Your task to perform on an android device: Go to privacy settings Image 0: 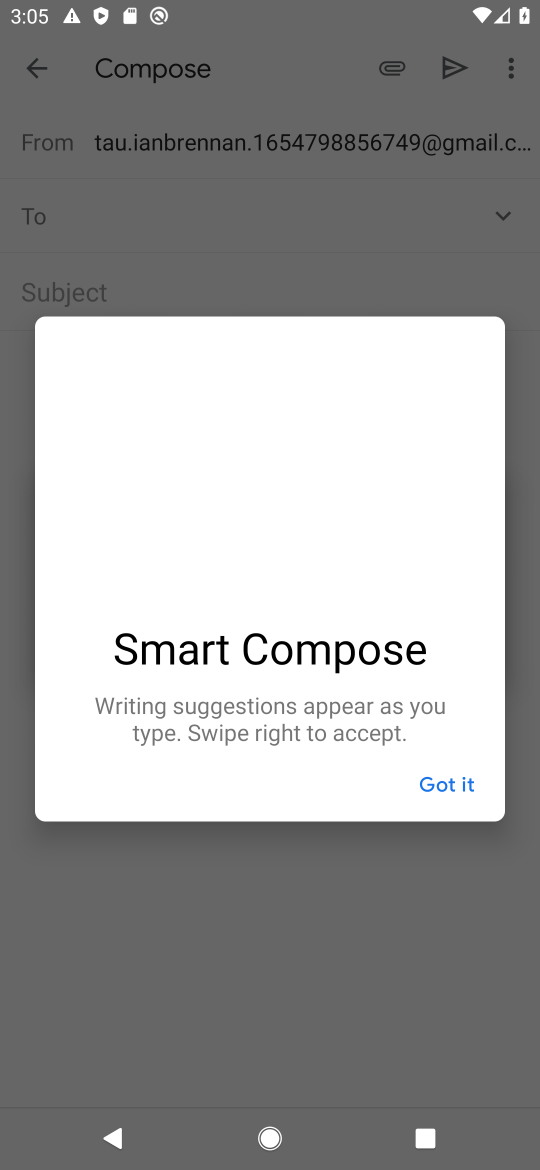
Step 0: press home button
Your task to perform on an android device: Go to privacy settings Image 1: 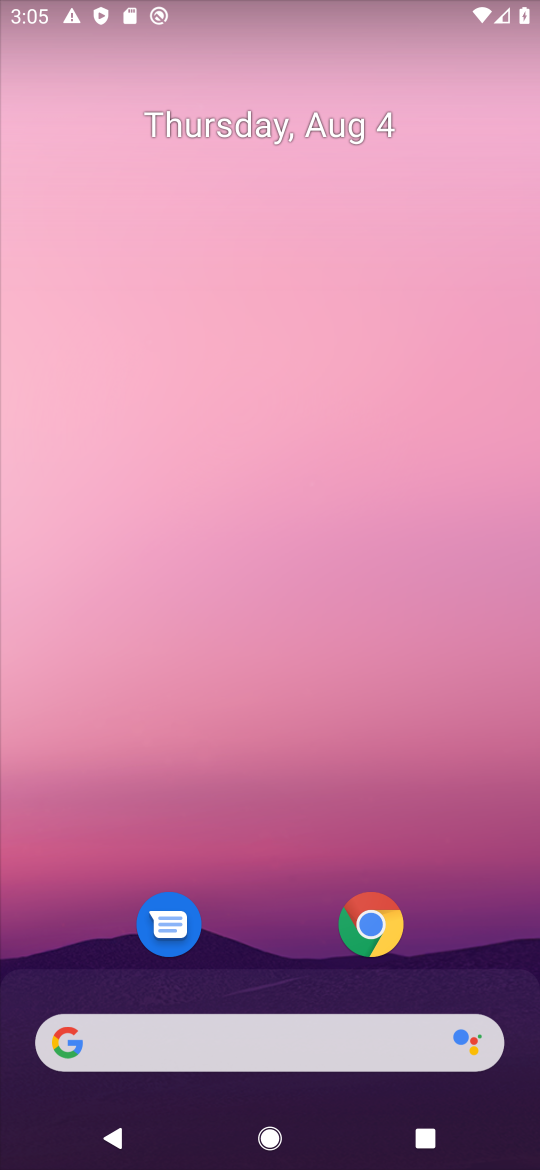
Step 1: drag from (280, 855) to (205, 34)
Your task to perform on an android device: Go to privacy settings Image 2: 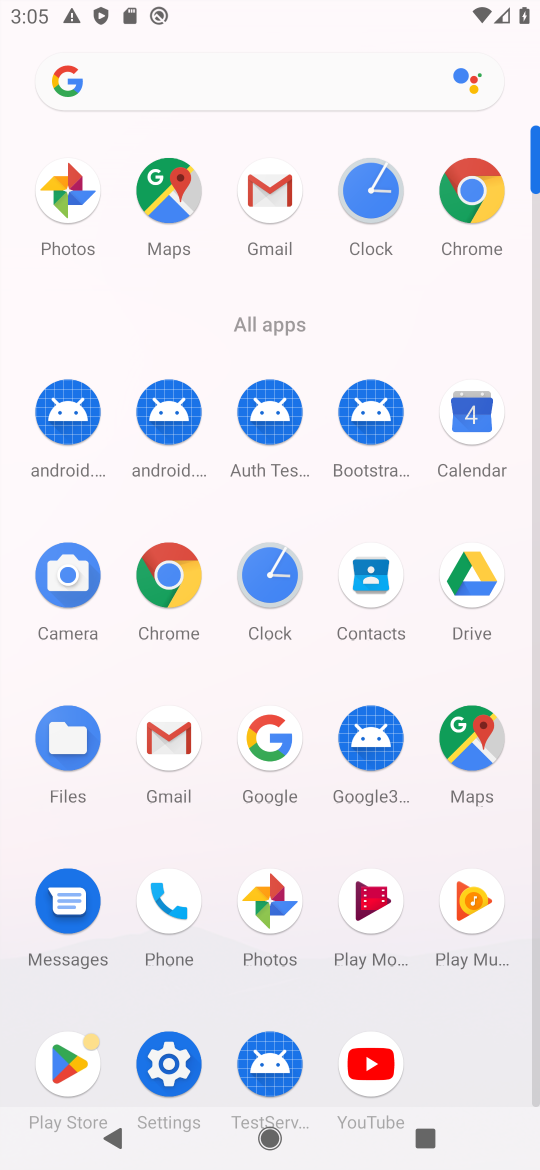
Step 2: click (170, 1050)
Your task to perform on an android device: Go to privacy settings Image 3: 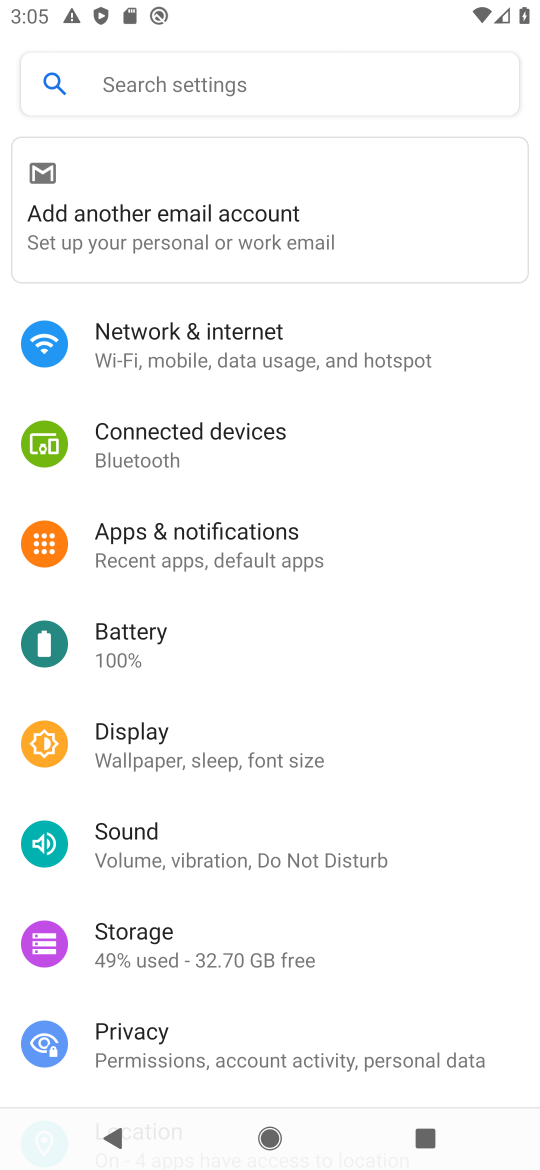
Step 3: click (118, 1028)
Your task to perform on an android device: Go to privacy settings Image 4: 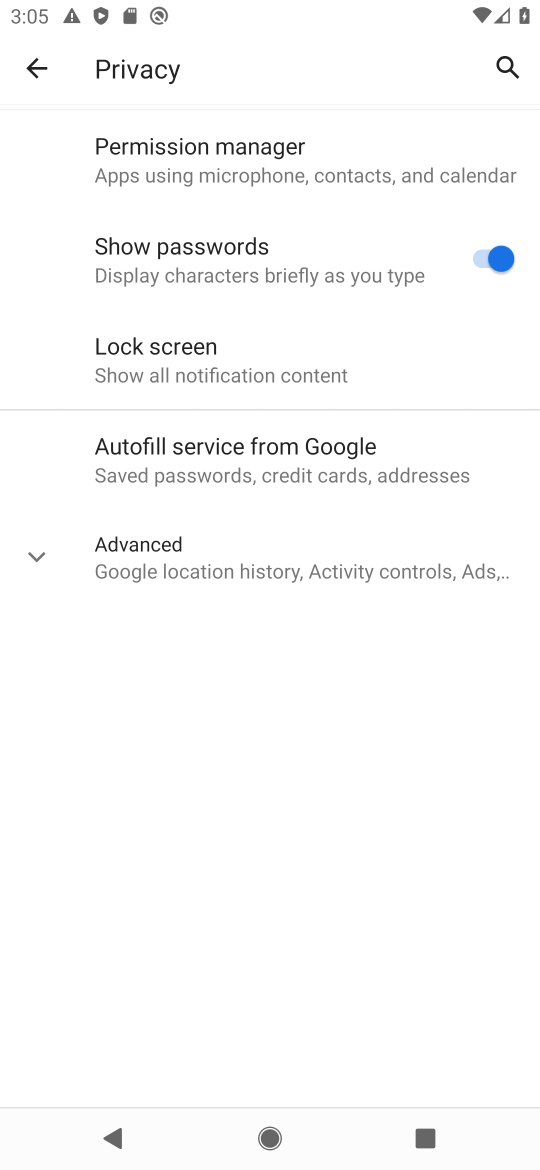
Step 4: task complete